Your task to perform on an android device: Go to wifi settings Image 0: 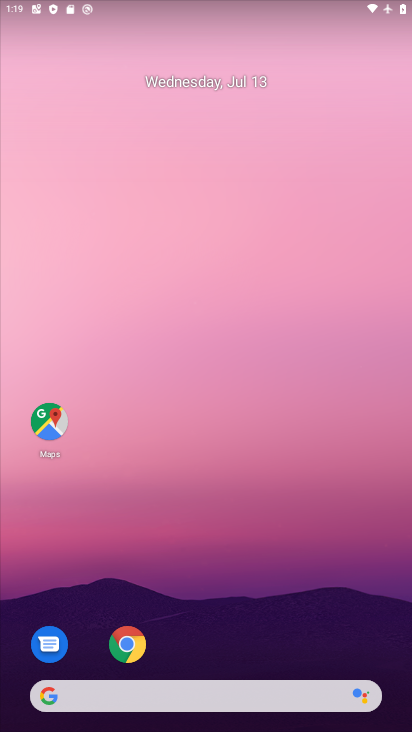
Step 0: drag from (329, 576) to (300, 103)
Your task to perform on an android device: Go to wifi settings Image 1: 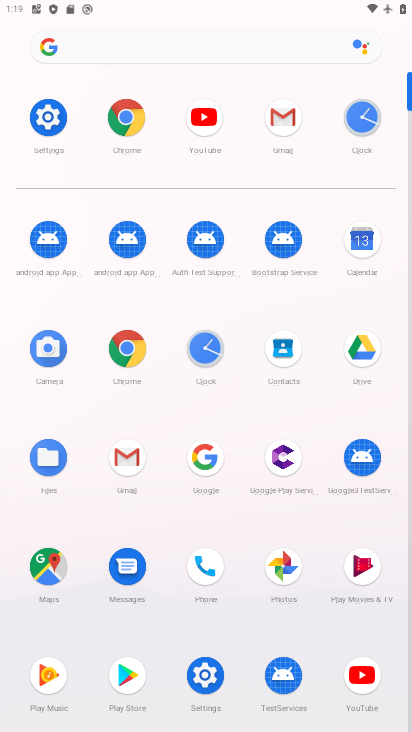
Step 1: click (48, 107)
Your task to perform on an android device: Go to wifi settings Image 2: 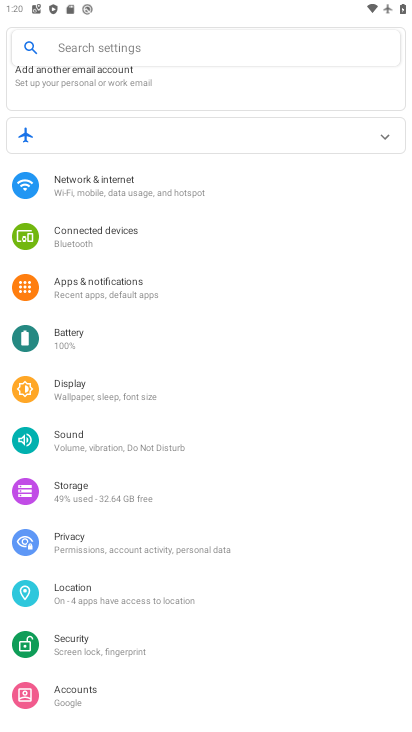
Step 2: click (143, 198)
Your task to perform on an android device: Go to wifi settings Image 3: 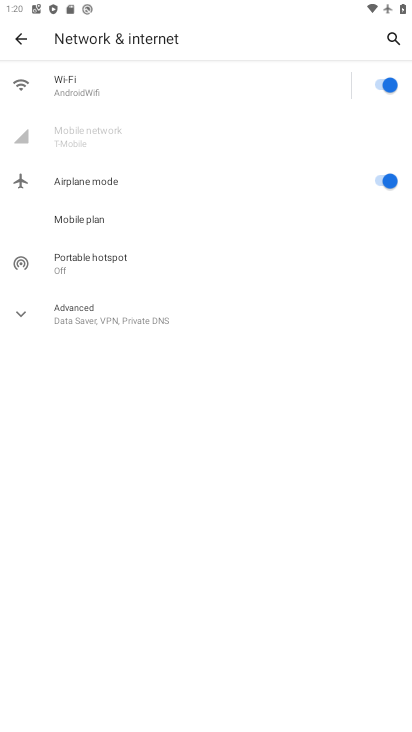
Step 3: click (146, 91)
Your task to perform on an android device: Go to wifi settings Image 4: 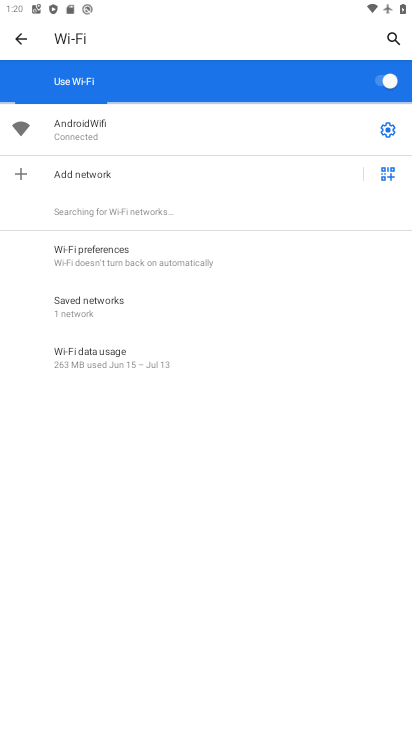
Step 4: click (388, 130)
Your task to perform on an android device: Go to wifi settings Image 5: 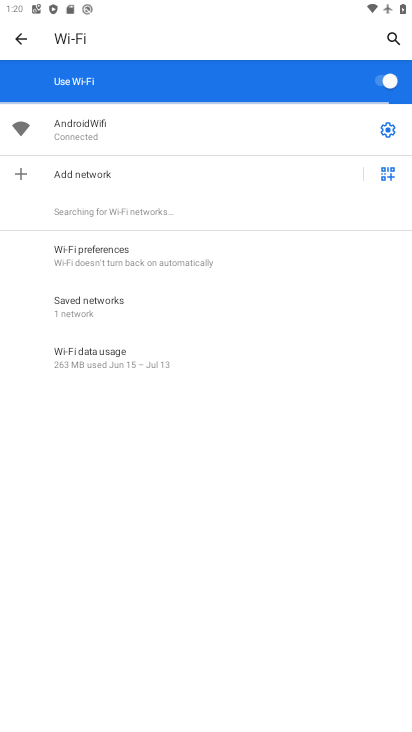
Step 5: click (386, 126)
Your task to perform on an android device: Go to wifi settings Image 6: 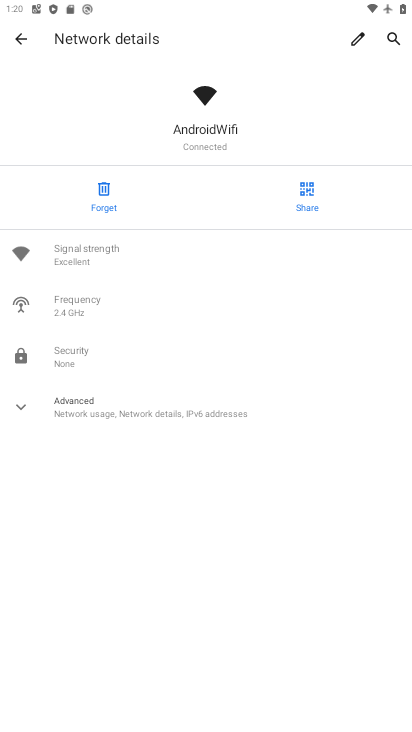
Step 6: task complete